Your task to perform on an android device: toggle javascript in the chrome app Image 0: 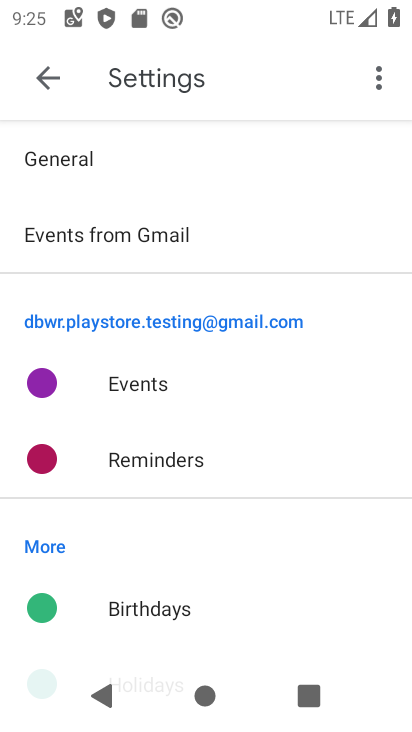
Step 0: press home button
Your task to perform on an android device: toggle javascript in the chrome app Image 1: 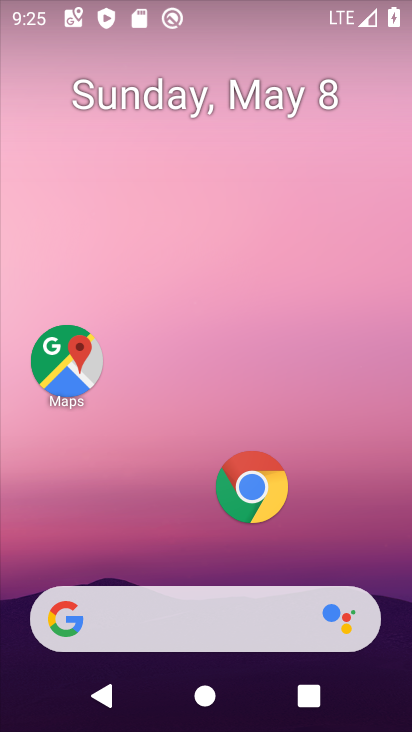
Step 1: click (266, 476)
Your task to perform on an android device: toggle javascript in the chrome app Image 2: 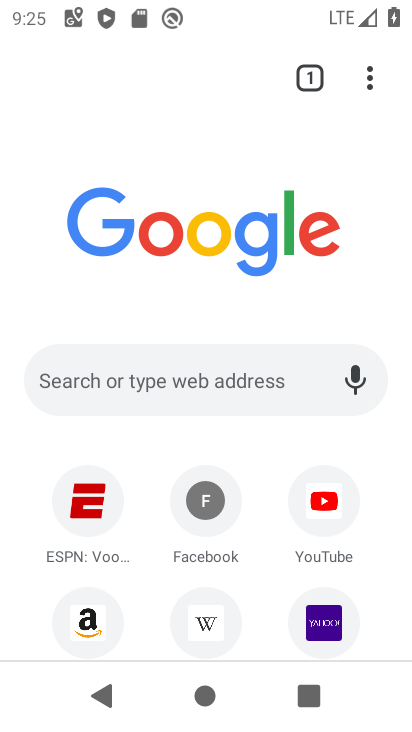
Step 2: click (365, 74)
Your task to perform on an android device: toggle javascript in the chrome app Image 3: 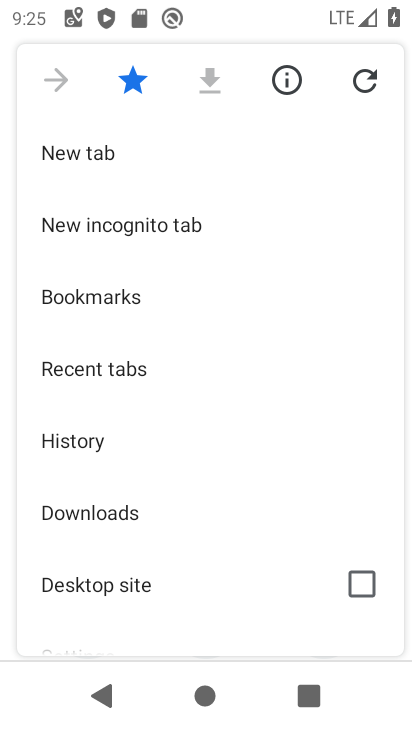
Step 3: drag from (226, 514) to (243, 167)
Your task to perform on an android device: toggle javascript in the chrome app Image 4: 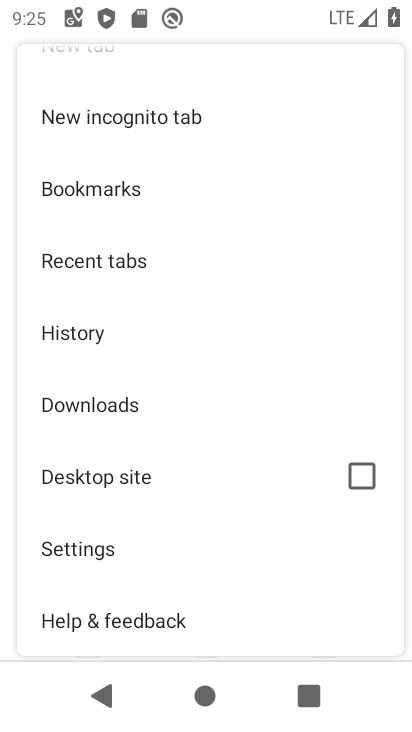
Step 4: click (104, 539)
Your task to perform on an android device: toggle javascript in the chrome app Image 5: 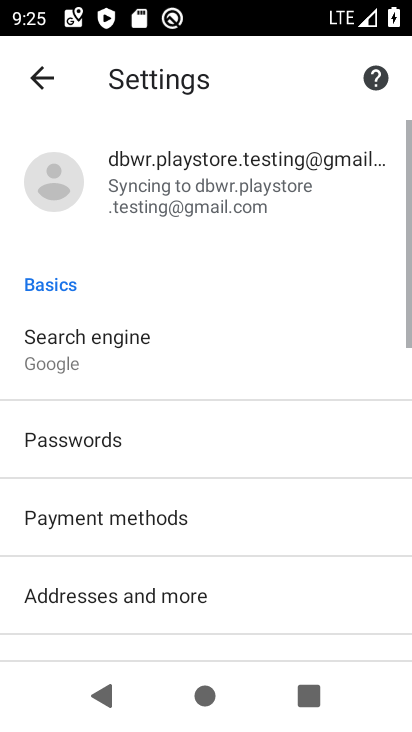
Step 5: drag from (226, 583) to (331, 83)
Your task to perform on an android device: toggle javascript in the chrome app Image 6: 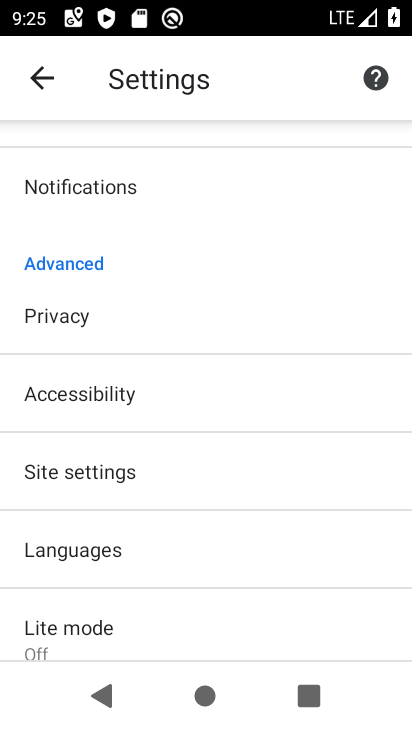
Step 6: click (151, 469)
Your task to perform on an android device: toggle javascript in the chrome app Image 7: 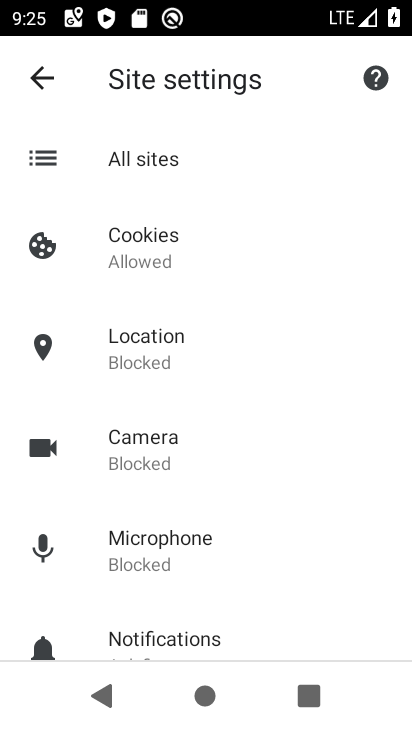
Step 7: drag from (268, 596) to (266, 228)
Your task to perform on an android device: toggle javascript in the chrome app Image 8: 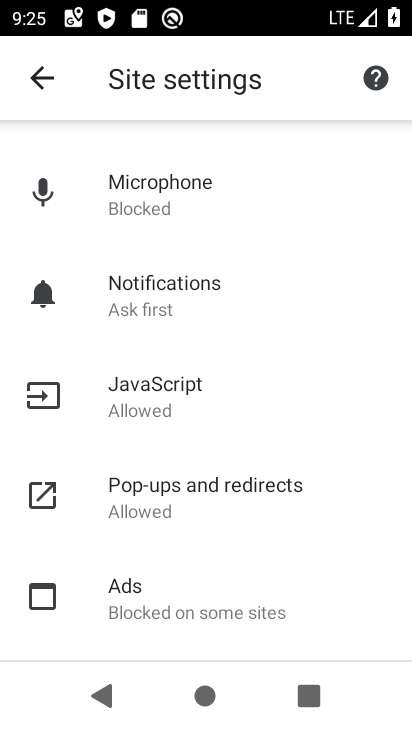
Step 8: click (217, 388)
Your task to perform on an android device: toggle javascript in the chrome app Image 9: 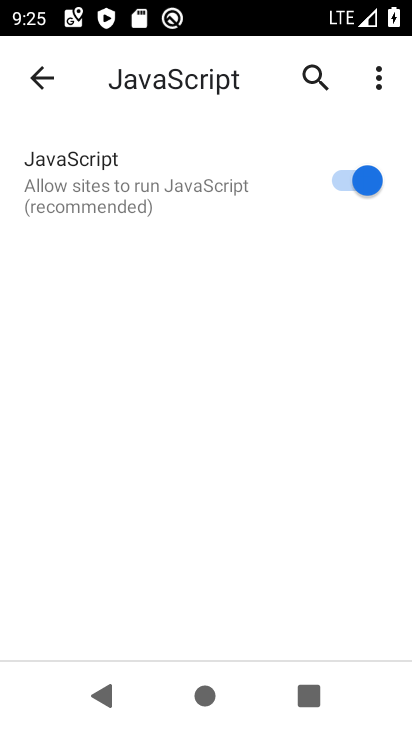
Step 9: click (339, 161)
Your task to perform on an android device: toggle javascript in the chrome app Image 10: 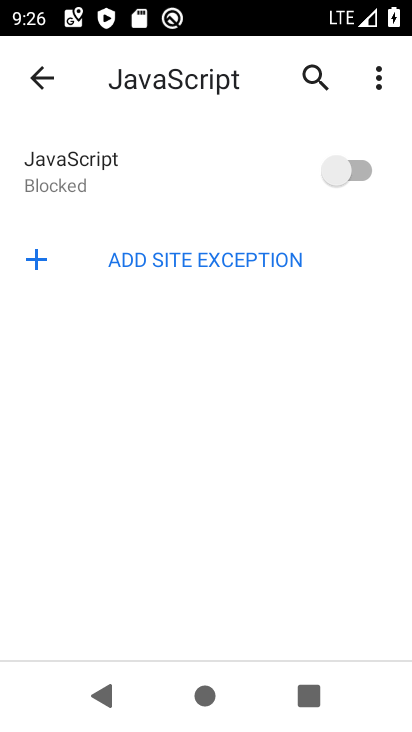
Step 10: task complete